Your task to perform on an android device: Open display settings Image 0: 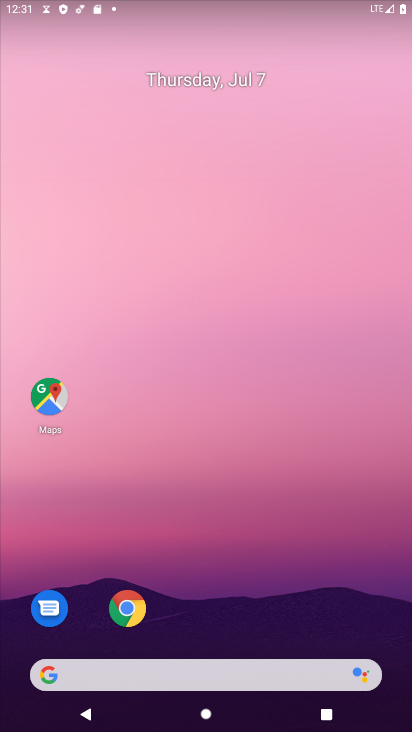
Step 0: drag from (168, 641) to (236, 197)
Your task to perform on an android device: Open display settings Image 1: 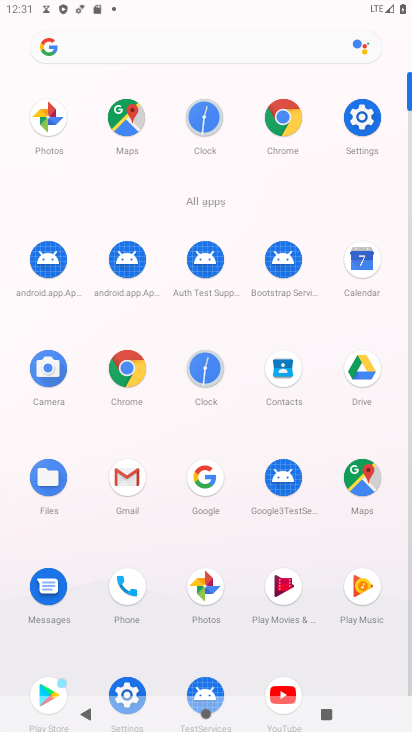
Step 1: click (124, 693)
Your task to perform on an android device: Open display settings Image 2: 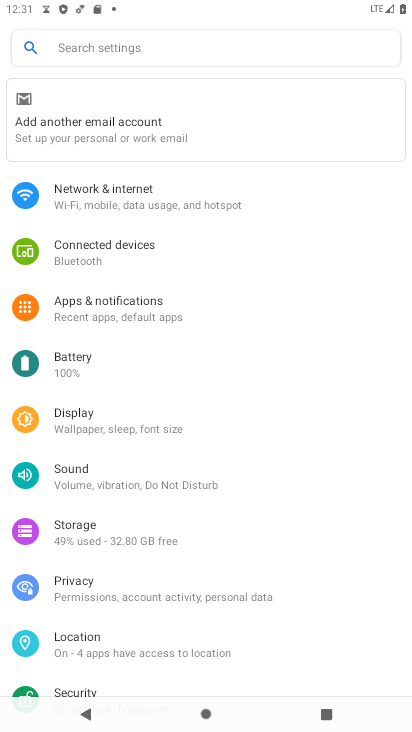
Step 2: click (97, 428)
Your task to perform on an android device: Open display settings Image 3: 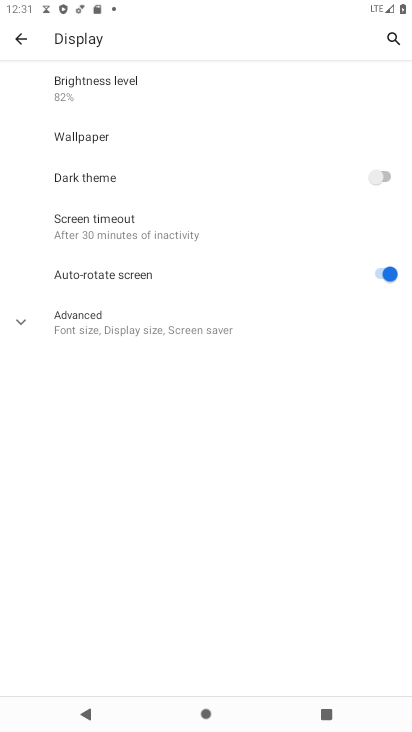
Step 3: task complete